Your task to perform on an android device: clear all cookies in the chrome app Image 0: 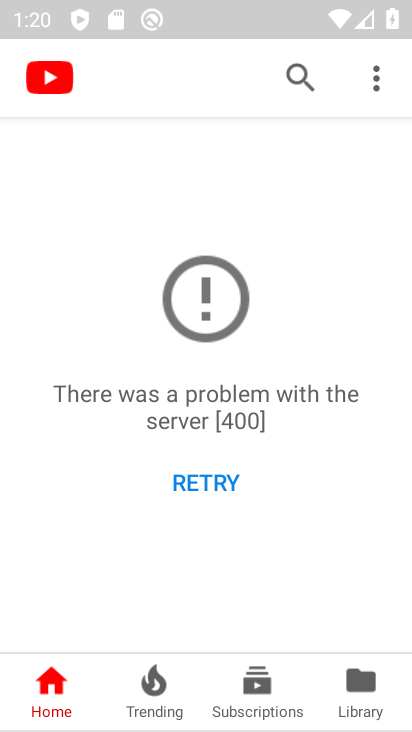
Step 0: press home button
Your task to perform on an android device: clear all cookies in the chrome app Image 1: 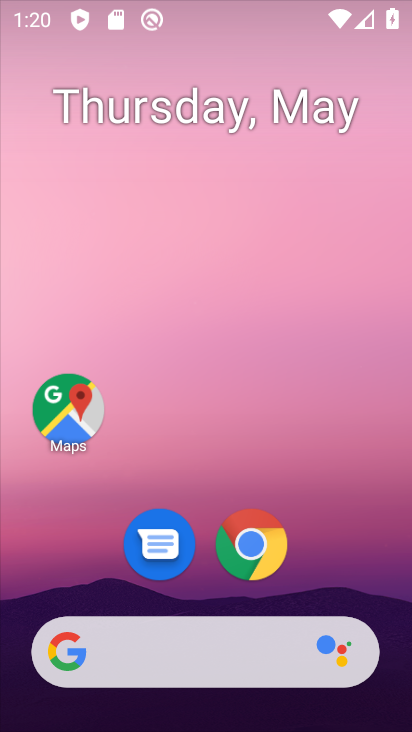
Step 1: click (241, 549)
Your task to perform on an android device: clear all cookies in the chrome app Image 2: 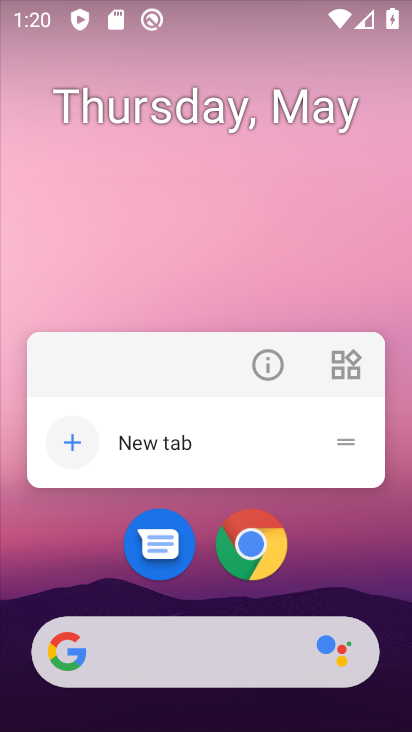
Step 2: click (237, 558)
Your task to perform on an android device: clear all cookies in the chrome app Image 3: 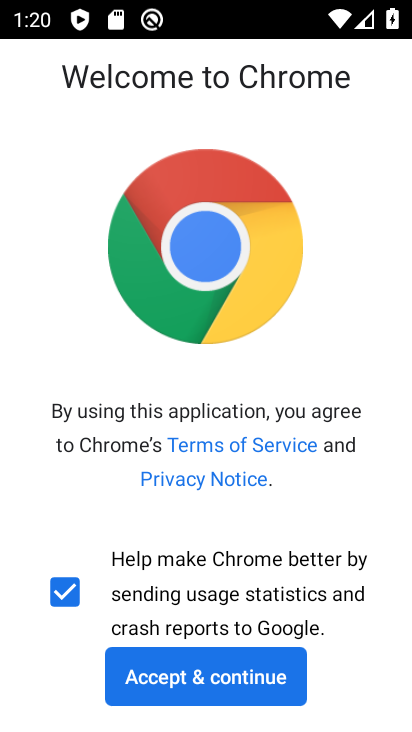
Step 3: click (226, 665)
Your task to perform on an android device: clear all cookies in the chrome app Image 4: 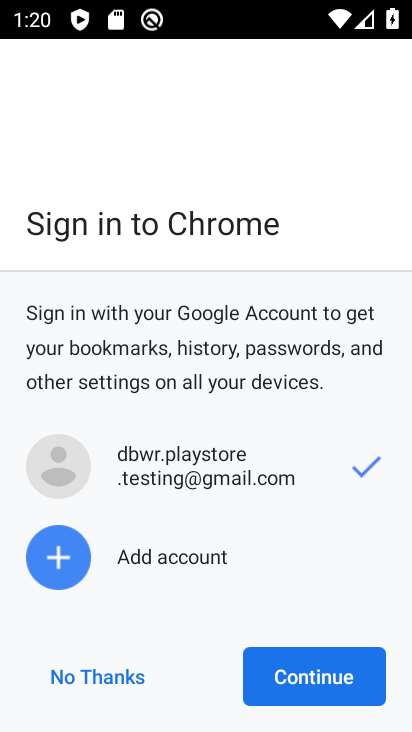
Step 4: click (327, 672)
Your task to perform on an android device: clear all cookies in the chrome app Image 5: 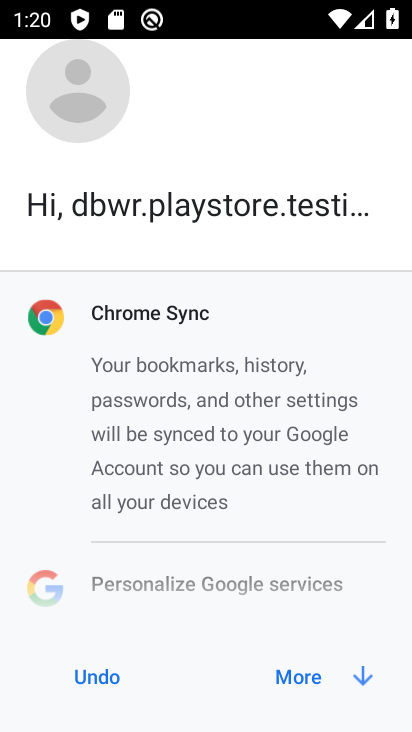
Step 5: click (327, 672)
Your task to perform on an android device: clear all cookies in the chrome app Image 6: 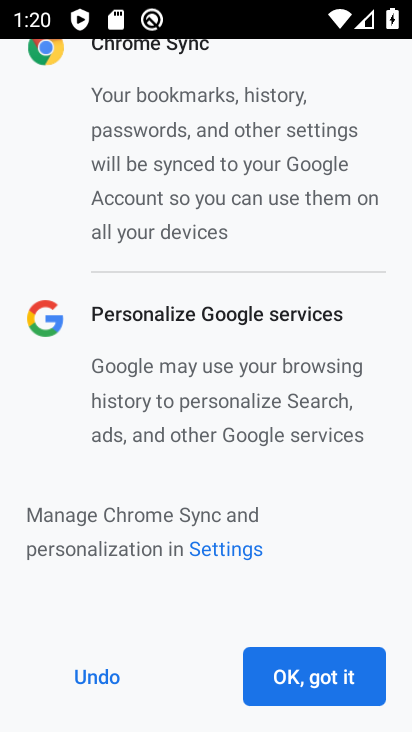
Step 6: click (351, 681)
Your task to perform on an android device: clear all cookies in the chrome app Image 7: 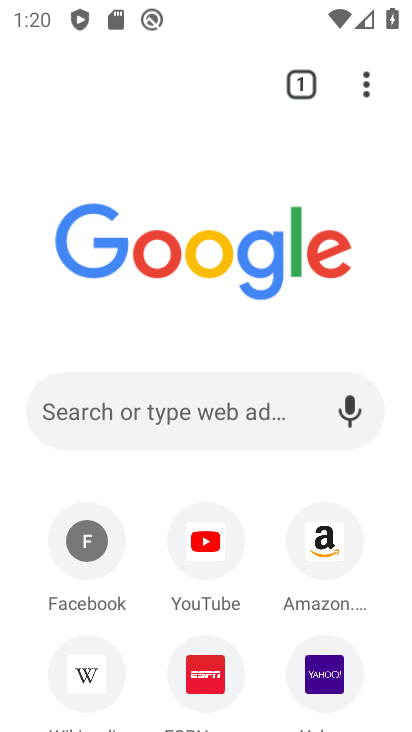
Step 7: click (364, 83)
Your task to perform on an android device: clear all cookies in the chrome app Image 8: 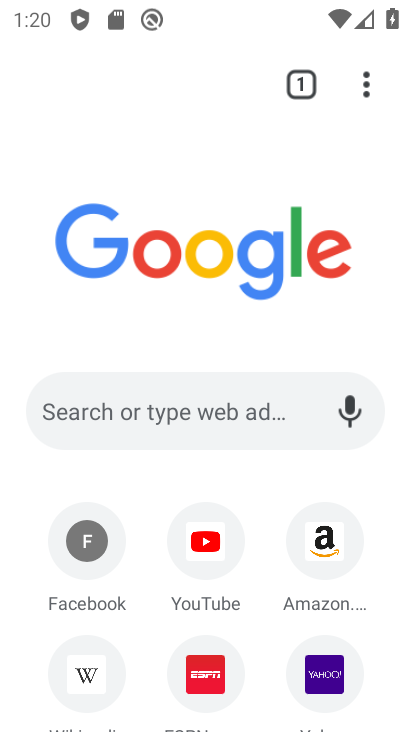
Step 8: task complete